Your task to perform on an android device: What is the news today? Image 0: 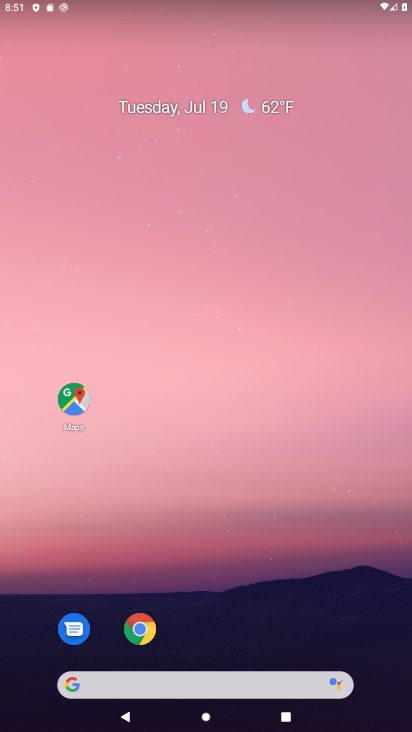
Step 0: press home button
Your task to perform on an android device: What is the news today? Image 1: 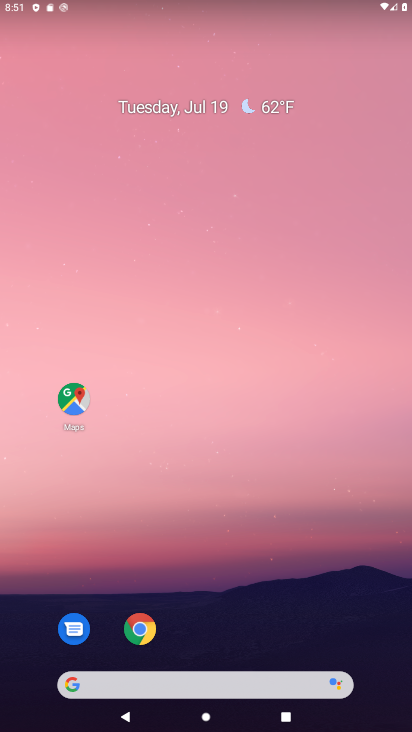
Step 1: task complete